Your task to perform on an android device: turn on the 24-hour format for clock Image 0: 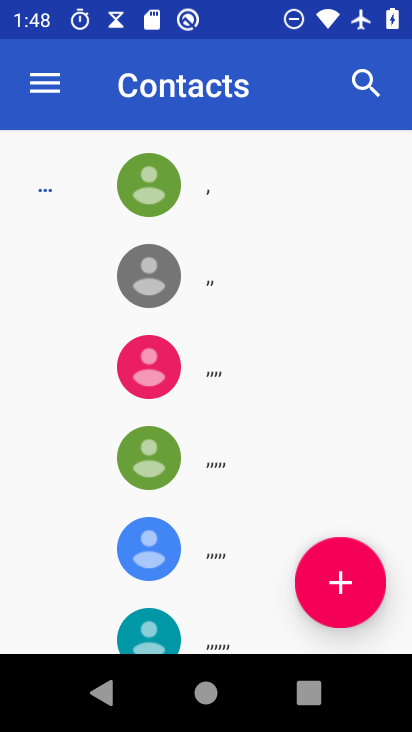
Step 0: press home button
Your task to perform on an android device: turn on the 24-hour format for clock Image 1: 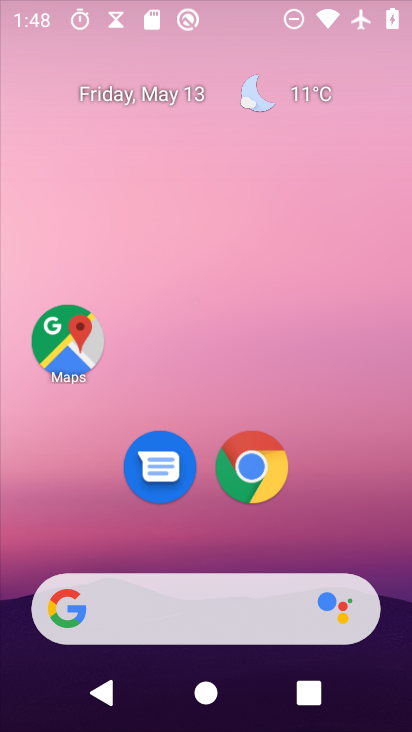
Step 1: drag from (365, 546) to (292, 96)
Your task to perform on an android device: turn on the 24-hour format for clock Image 2: 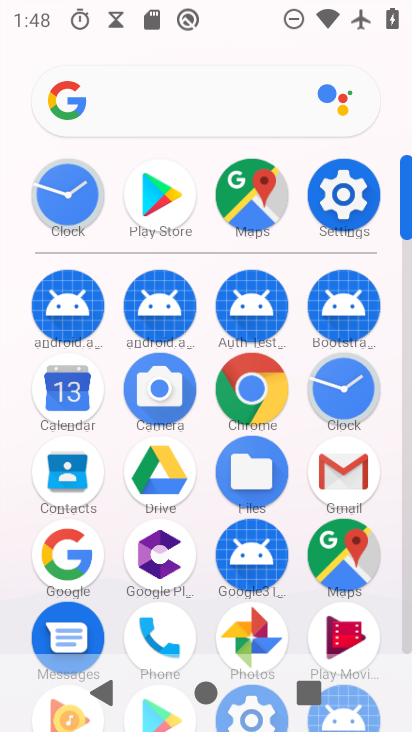
Step 2: click (349, 397)
Your task to perform on an android device: turn on the 24-hour format for clock Image 3: 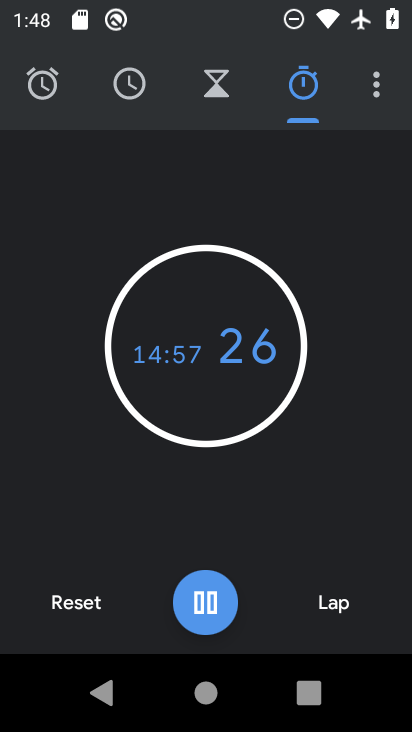
Step 3: click (374, 87)
Your task to perform on an android device: turn on the 24-hour format for clock Image 4: 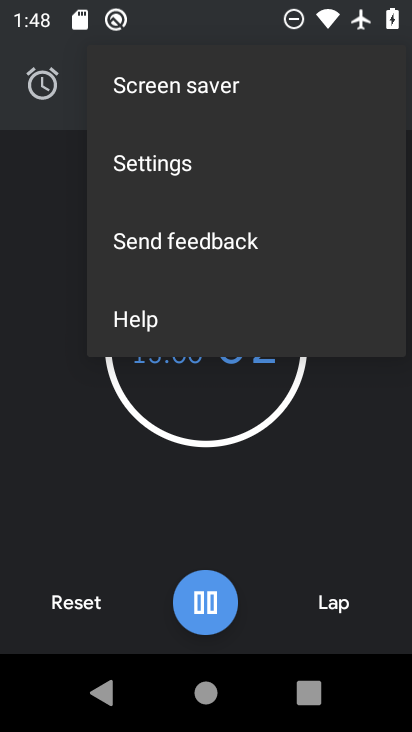
Step 4: click (197, 156)
Your task to perform on an android device: turn on the 24-hour format for clock Image 5: 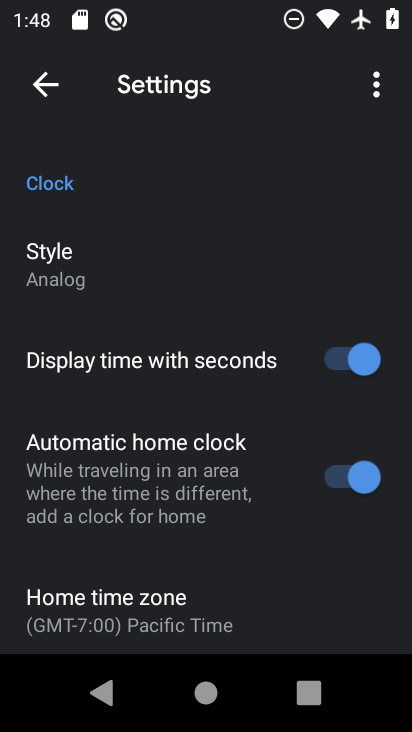
Step 5: drag from (239, 595) to (196, 198)
Your task to perform on an android device: turn on the 24-hour format for clock Image 6: 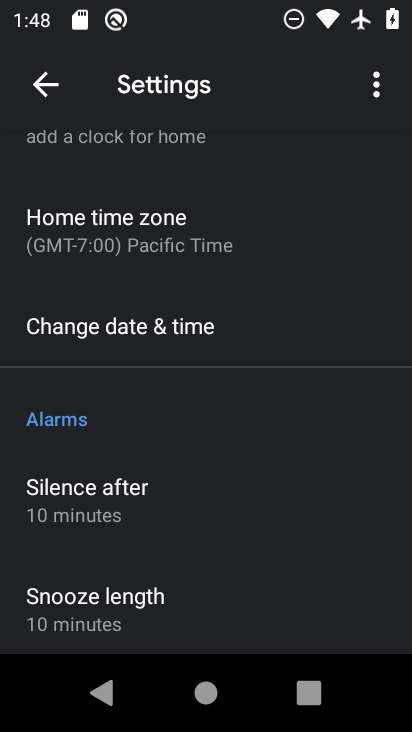
Step 6: click (177, 340)
Your task to perform on an android device: turn on the 24-hour format for clock Image 7: 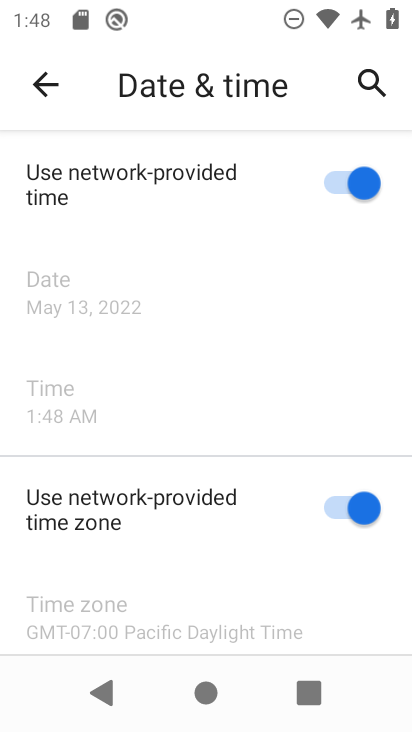
Step 7: drag from (261, 531) to (220, 164)
Your task to perform on an android device: turn on the 24-hour format for clock Image 8: 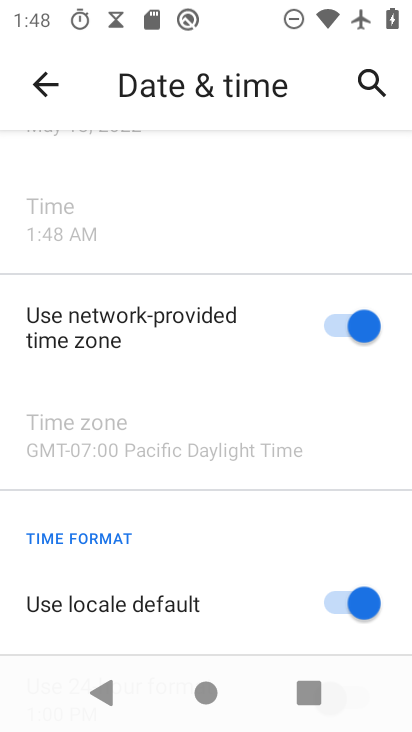
Step 8: drag from (205, 567) to (201, 241)
Your task to perform on an android device: turn on the 24-hour format for clock Image 9: 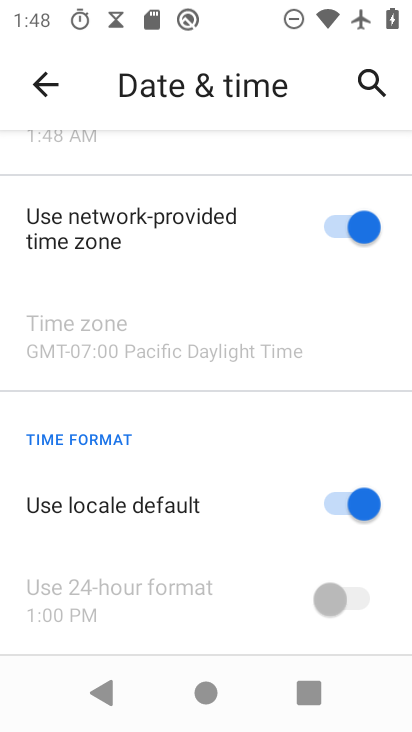
Step 9: click (358, 494)
Your task to perform on an android device: turn on the 24-hour format for clock Image 10: 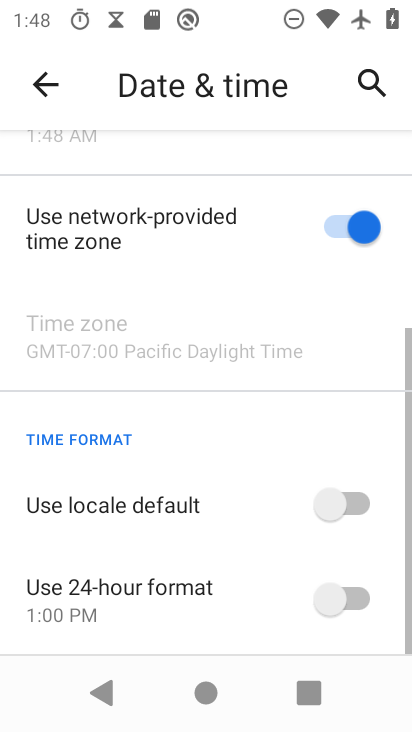
Step 10: click (329, 602)
Your task to perform on an android device: turn on the 24-hour format for clock Image 11: 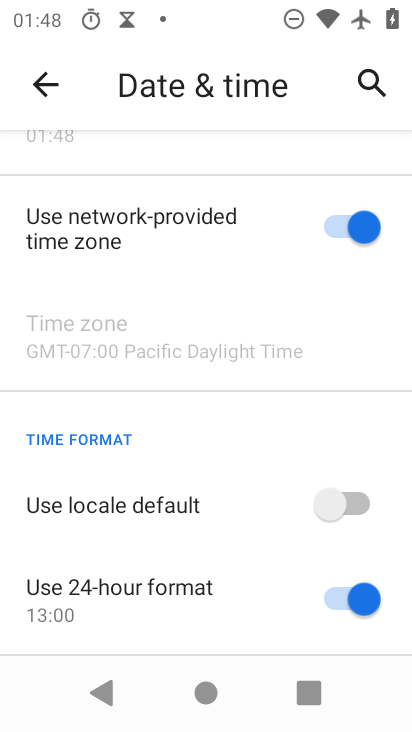
Step 11: task complete